Your task to perform on an android device: move a message to another label in the gmail app Image 0: 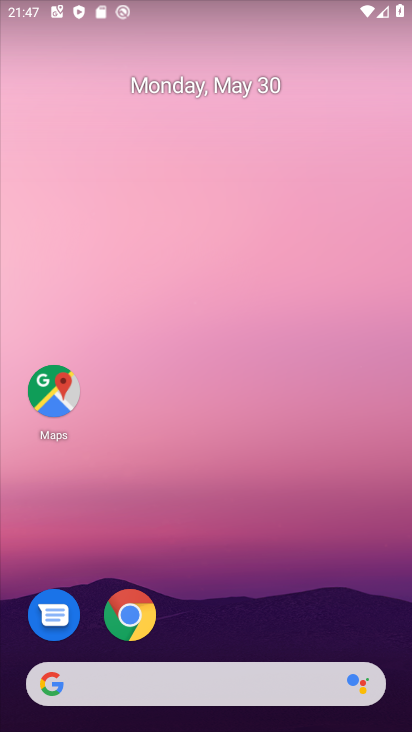
Step 0: drag from (236, 628) to (196, 245)
Your task to perform on an android device: move a message to another label in the gmail app Image 1: 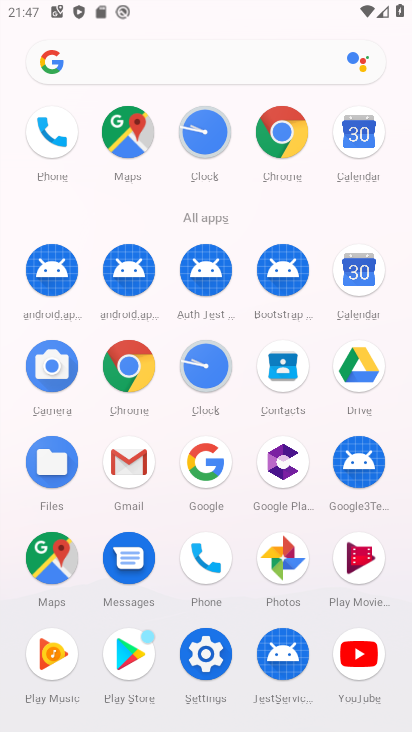
Step 1: click (110, 461)
Your task to perform on an android device: move a message to another label in the gmail app Image 2: 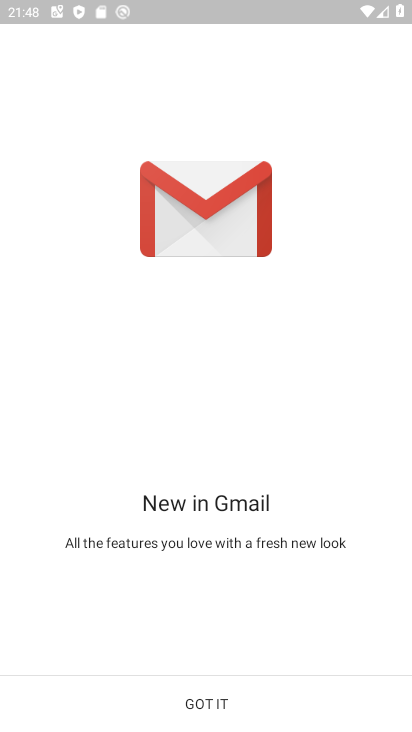
Step 2: click (229, 713)
Your task to perform on an android device: move a message to another label in the gmail app Image 3: 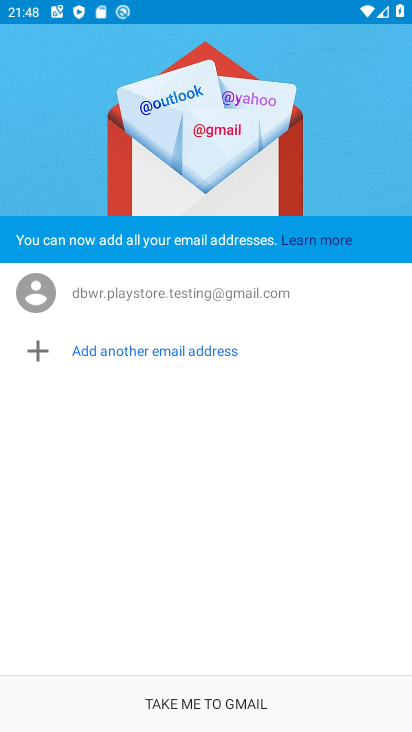
Step 3: click (234, 705)
Your task to perform on an android device: move a message to another label in the gmail app Image 4: 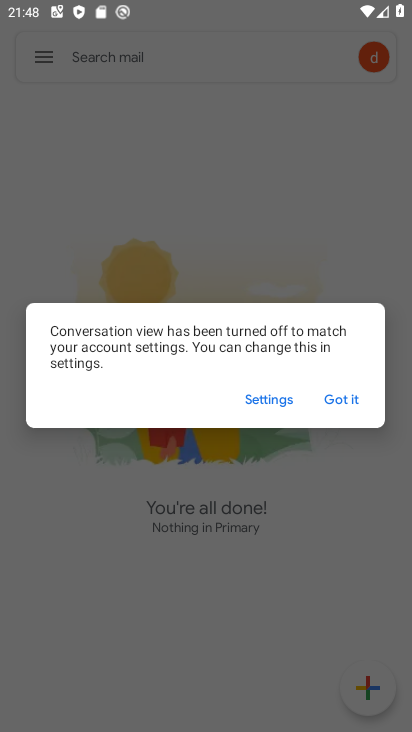
Step 4: click (336, 400)
Your task to perform on an android device: move a message to another label in the gmail app Image 5: 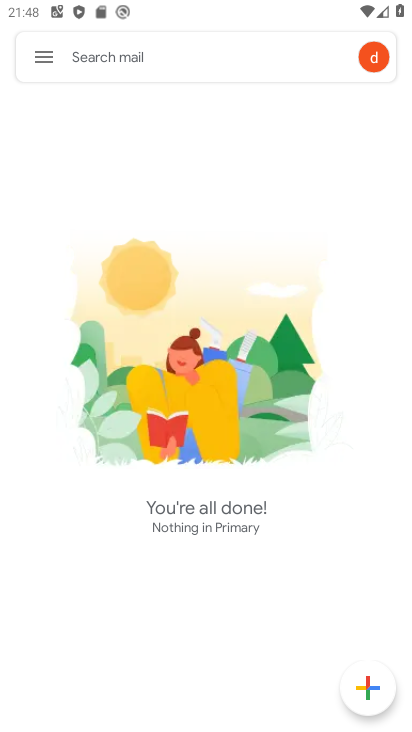
Step 5: click (235, 396)
Your task to perform on an android device: move a message to another label in the gmail app Image 6: 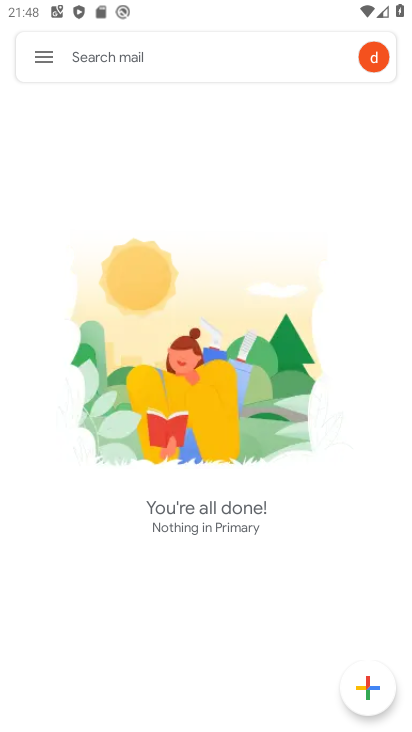
Step 6: click (232, 397)
Your task to perform on an android device: move a message to another label in the gmail app Image 7: 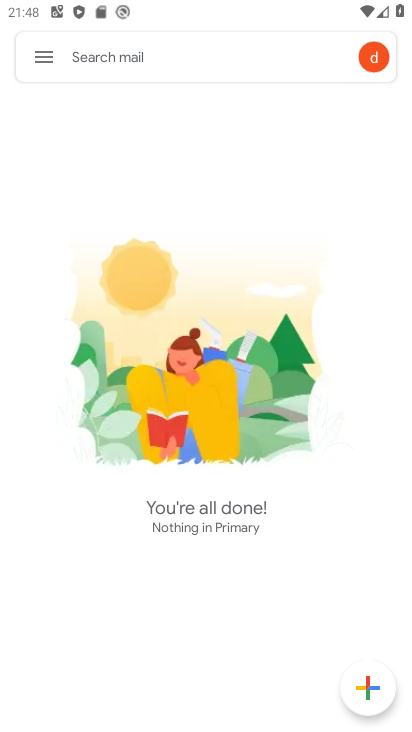
Step 7: drag from (179, 269) to (55, 150)
Your task to perform on an android device: move a message to another label in the gmail app Image 8: 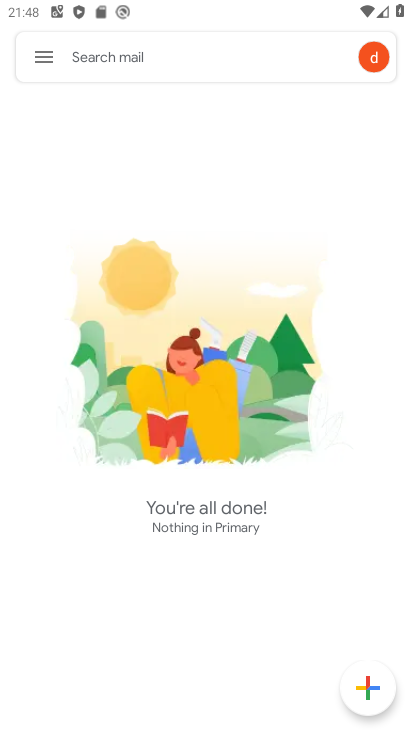
Step 8: click (32, 52)
Your task to perform on an android device: move a message to another label in the gmail app Image 9: 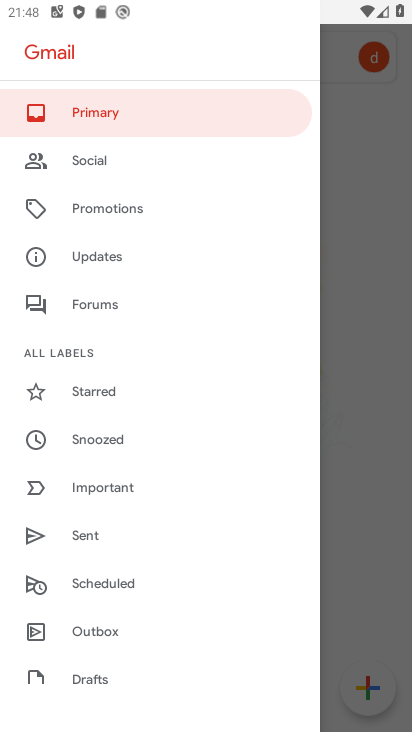
Step 9: drag from (148, 597) to (116, 522)
Your task to perform on an android device: move a message to another label in the gmail app Image 10: 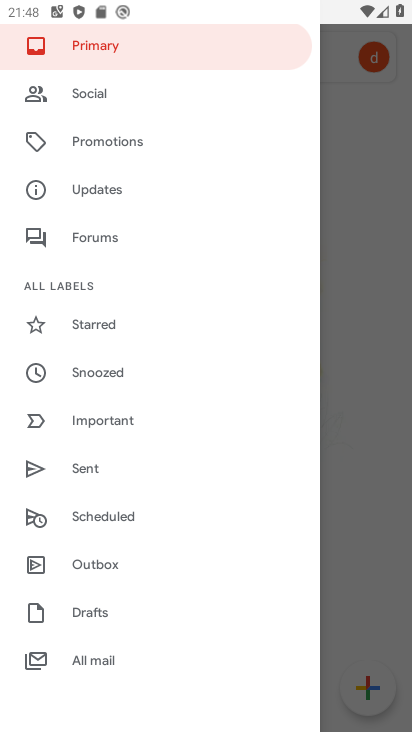
Step 10: click (121, 669)
Your task to perform on an android device: move a message to another label in the gmail app Image 11: 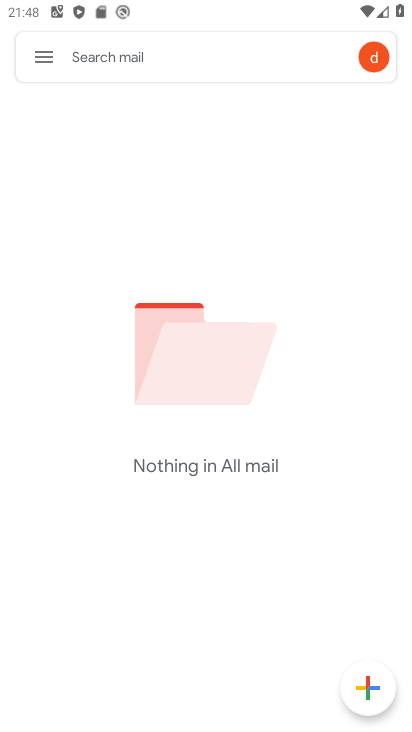
Step 11: task complete